Your task to perform on an android device: turn on location history Image 0: 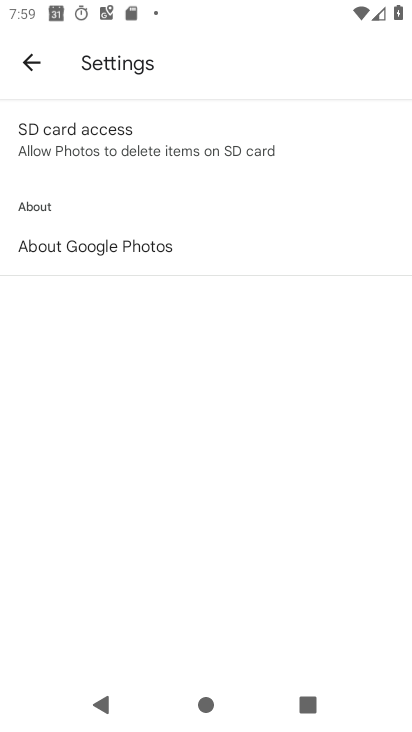
Step 0: press home button
Your task to perform on an android device: turn on location history Image 1: 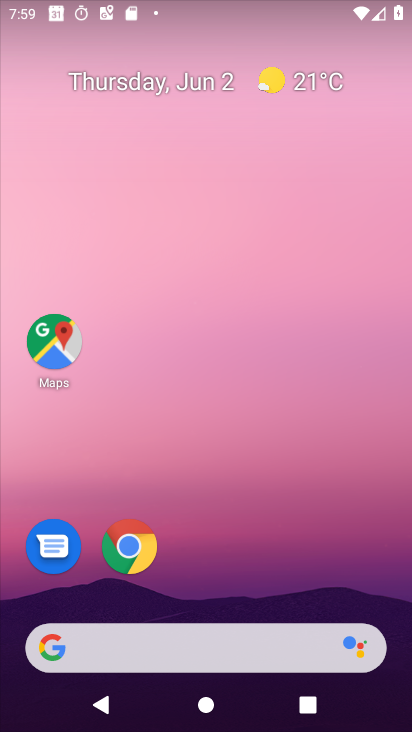
Step 1: drag from (222, 610) to (242, 164)
Your task to perform on an android device: turn on location history Image 2: 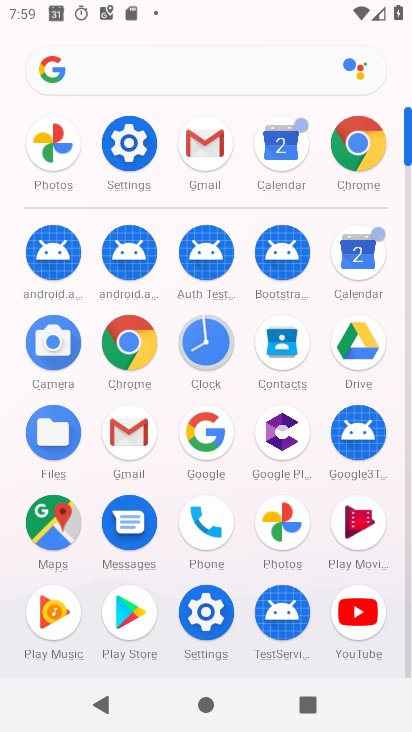
Step 2: click (138, 154)
Your task to perform on an android device: turn on location history Image 3: 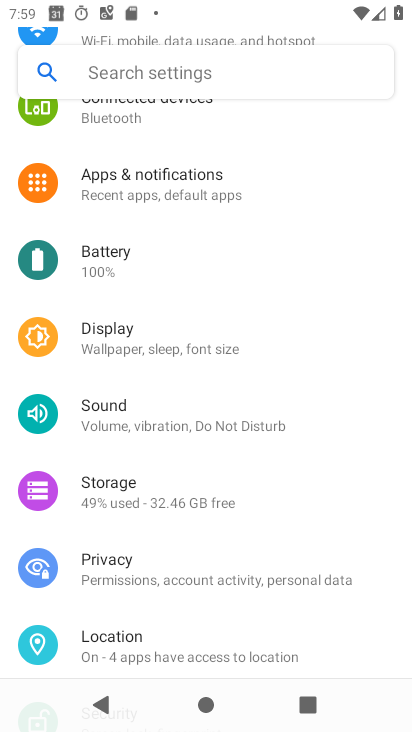
Step 3: drag from (135, 546) to (211, 310)
Your task to perform on an android device: turn on location history Image 4: 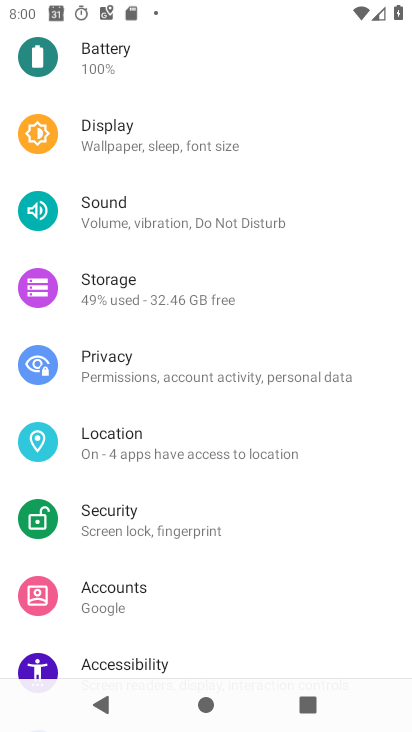
Step 4: click (166, 456)
Your task to perform on an android device: turn on location history Image 5: 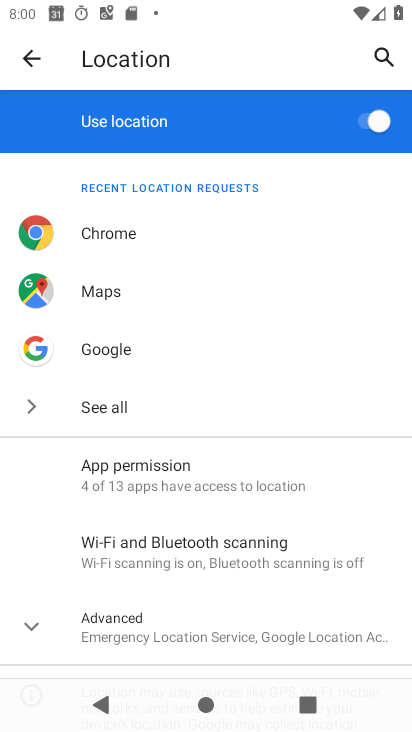
Step 5: click (198, 628)
Your task to perform on an android device: turn on location history Image 6: 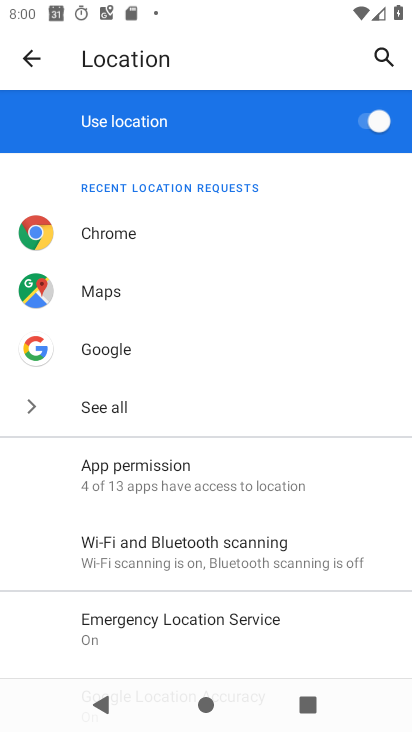
Step 6: drag from (251, 625) to (303, 216)
Your task to perform on an android device: turn on location history Image 7: 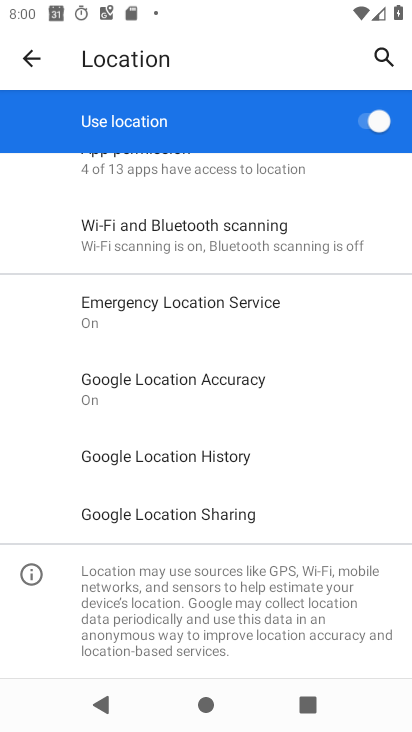
Step 7: click (175, 460)
Your task to perform on an android device: turn on location history Image 8: 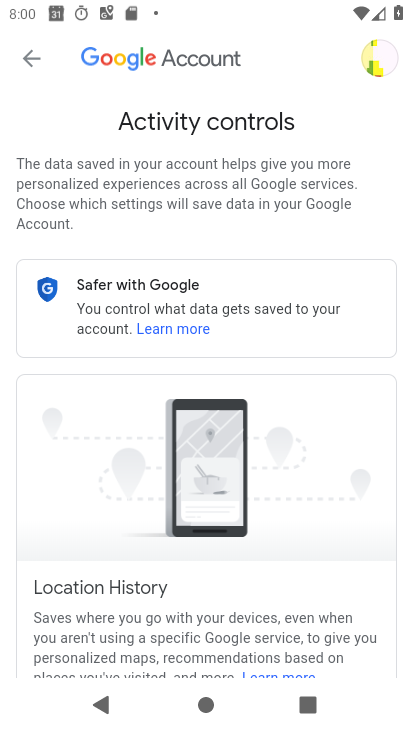
Step 8: drag from (169, 644) to (288, 321)
Your task to perform on an android device: turn on location history Image 9: 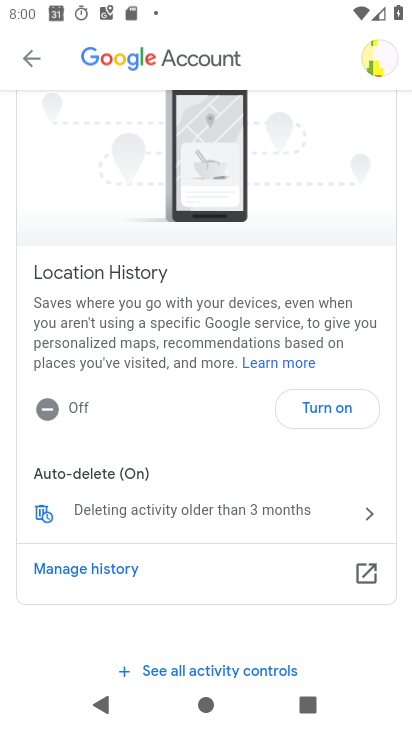
Step 9: click (318, 404)
Your task to perform on an android device: turn on location history Image 10: 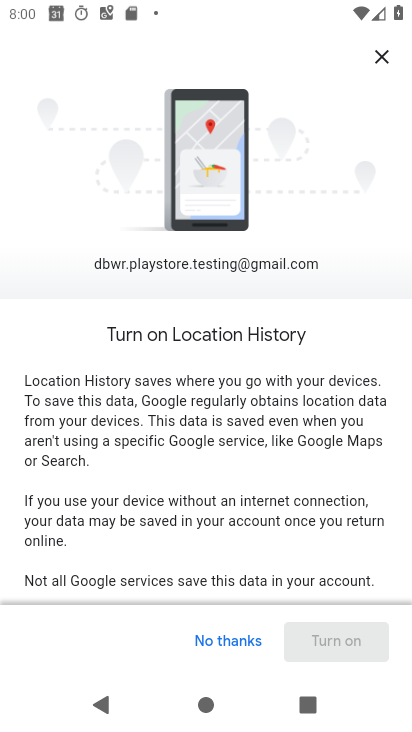
Step 10: drag from (270, 524) to (331, 110)
Your task to perform on an android device: turn on location history Image 11: 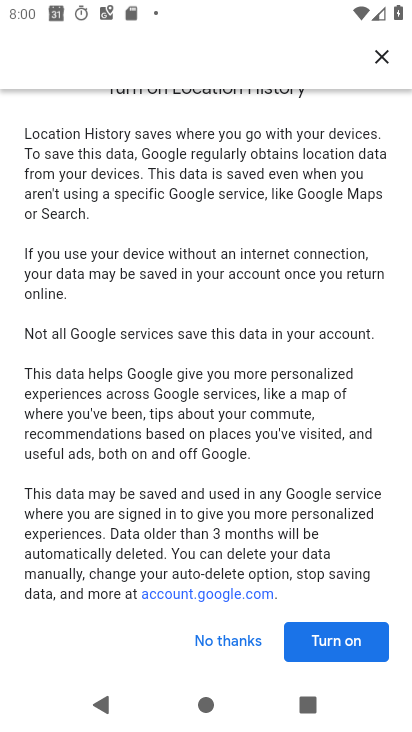
Step 11: click (310, 655)
Your task to perform on an android device: turn on location history Image 12: 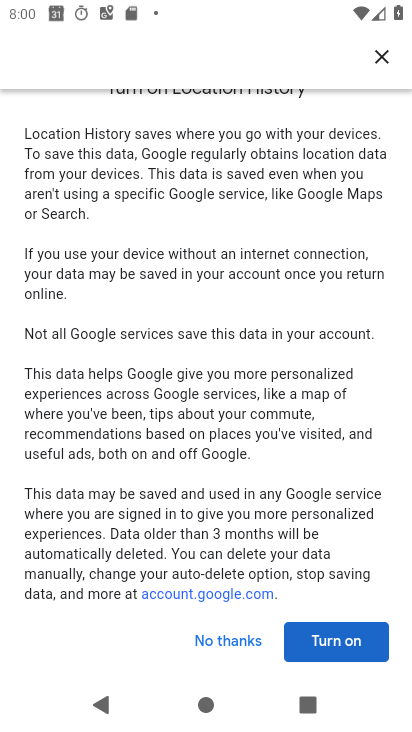
Step 12: click (319, 640)
Your task to perform on an android device: turn on location history Image 13: 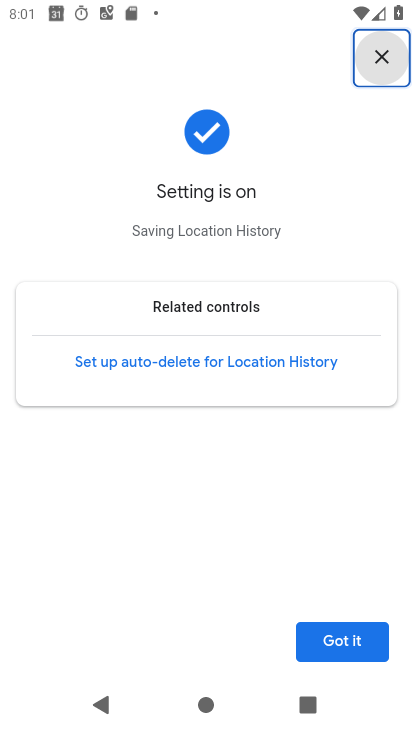
Step 13: task complete